Your task to perform on an android device: Open Maps and search for coffee Image 0: 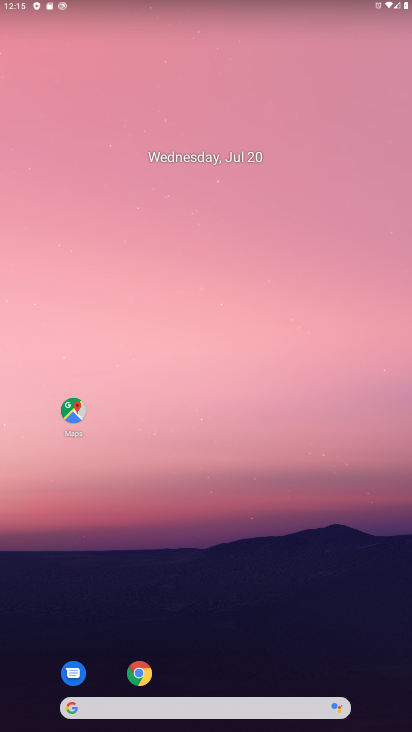
Step 0: drag from (179, 703) to (142, 220)
Your task to perform on an android device: Open Maps and search for coffee Image 1: 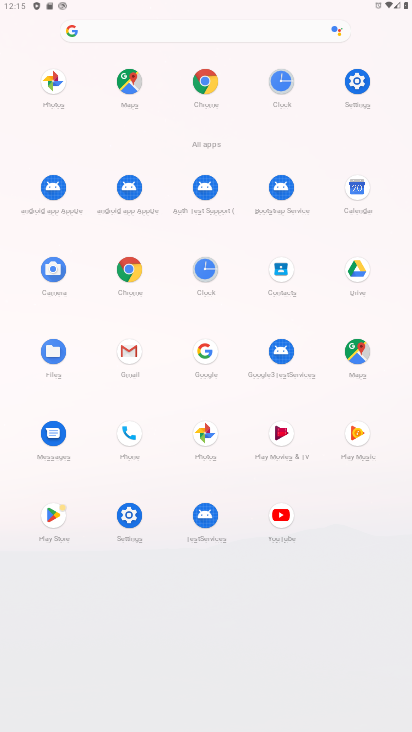
Step 1: click (357, 353)
Your task to perform on an android device: Open Maps and search for coffee Image 2: 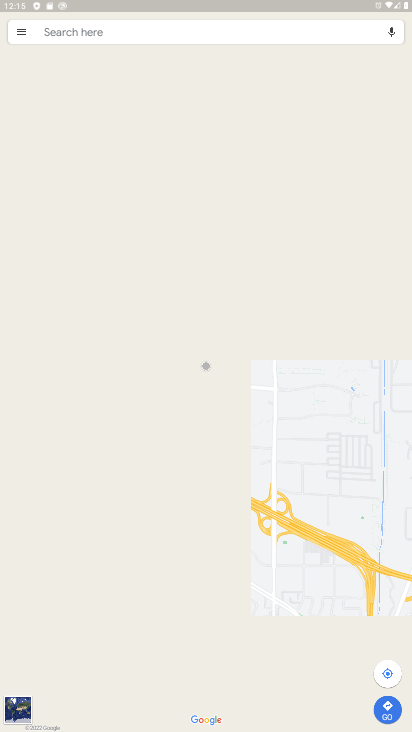
Step 2: click (236, 41)
Your task to perform on an android device: Open Maps and search for coffee Image 3: 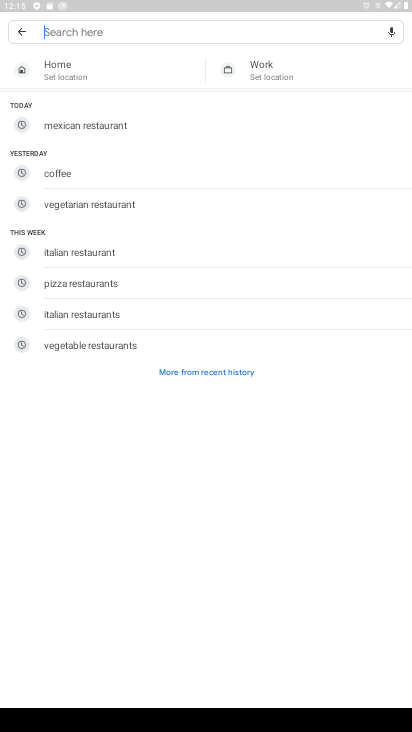
Step 3: click (71, 174)
Your task to perform on an android device: Open Maps and search for coffee Image 4: 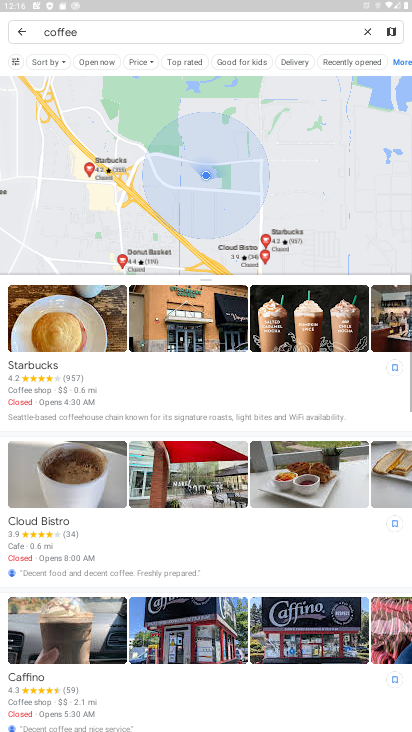
Step 4: task complete